Your task to perform on an android device: turn notification dots on Image 0: 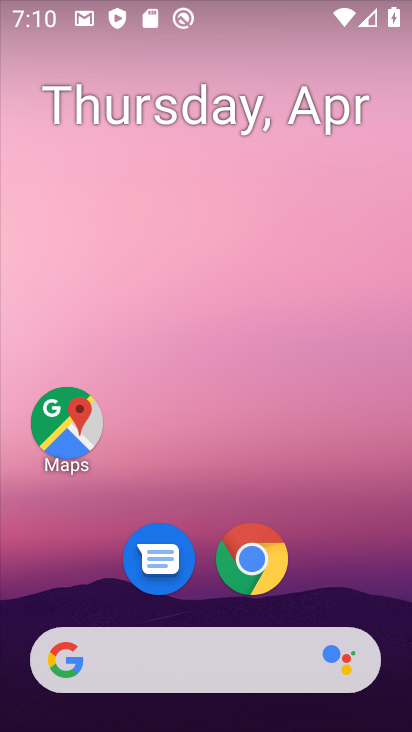
Step 0: drag from (342, 578) to (382, 9)
Your task to perform on an android device: turn notification dots on Image 1: 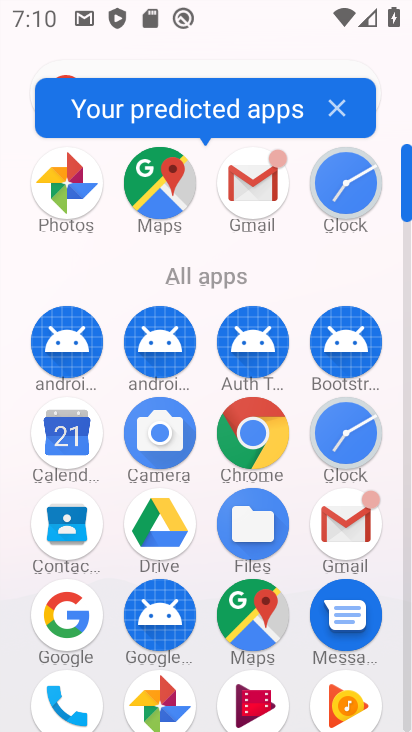
Step 1: drag from (293, 287) to (299, 53)
Your task to perform on an android device: turn notification dots on Image 2: 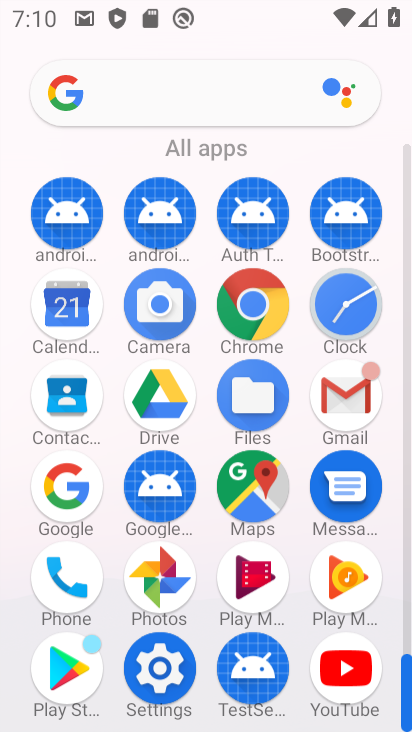
Step 2: click (157, 666)
Your task to perform on an android device: turn notification dots on Image 3: 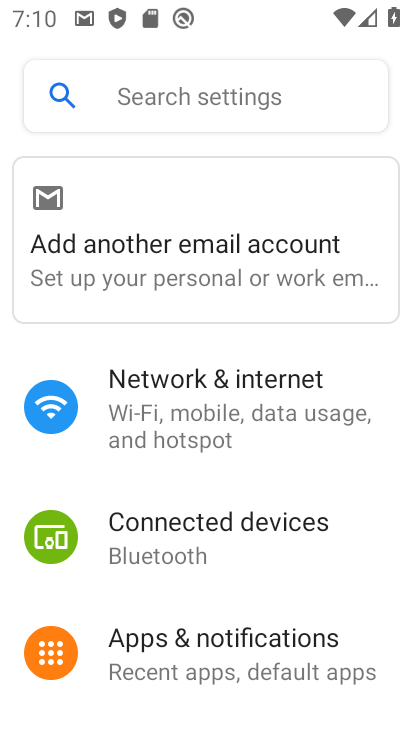
Step 3: drag from (340, 568) to (338, 244)
Your task to perform on an android device: turn notification dots on Image 4: 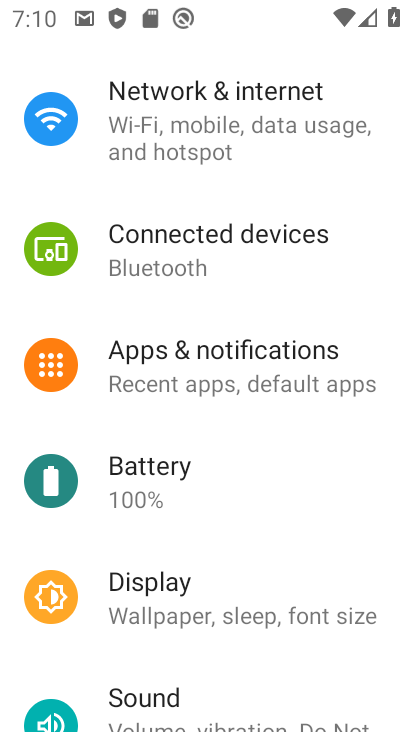
Step 4: click (204, 368)
Your task to perform on an android device: turn notification dots on Image 5: 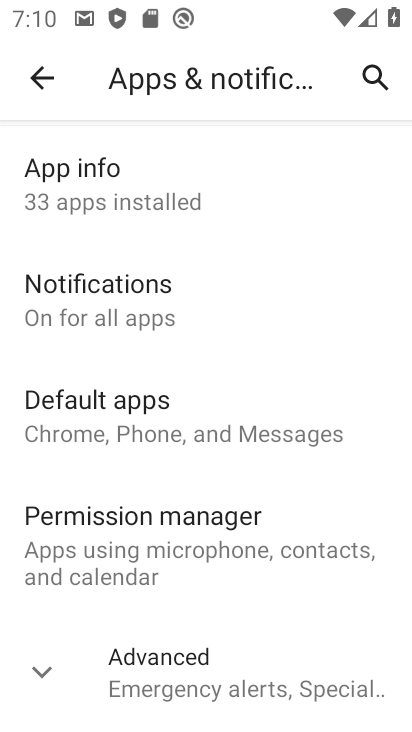
Step 5: click (179, 651)
Your task to perform on an android device: turn notification dots on Image 6: 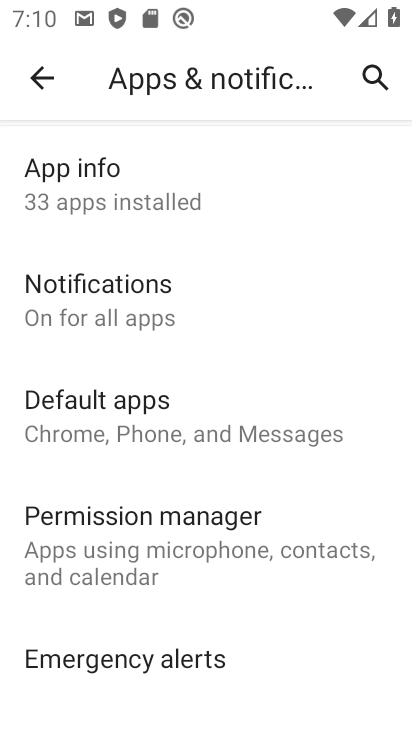
Step 6: drag from (303, 608) to (290, 308)
Your task to perform on an android device: turn notification dots on Image 7: 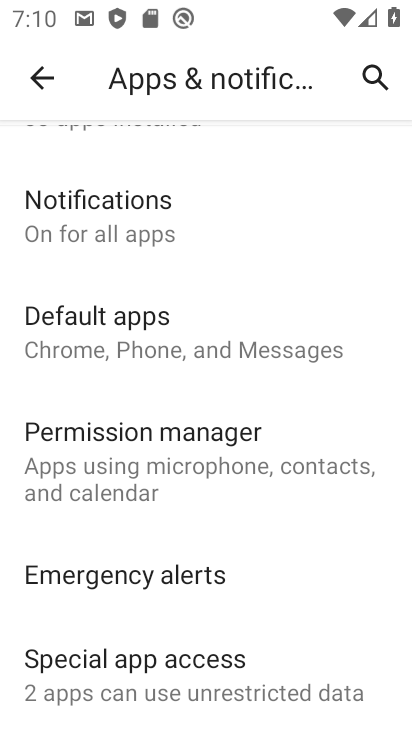
Step 7: click (103, 213)
Your task to perform on an android device: turn notification dots on Image 8: 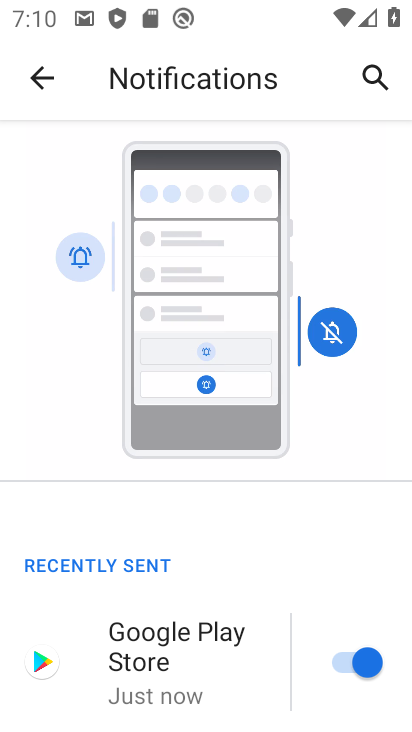
Step 8: drag from (359, 534) to (357, 219)
Your task to perform on an android device: turn notification dots on Image 9: 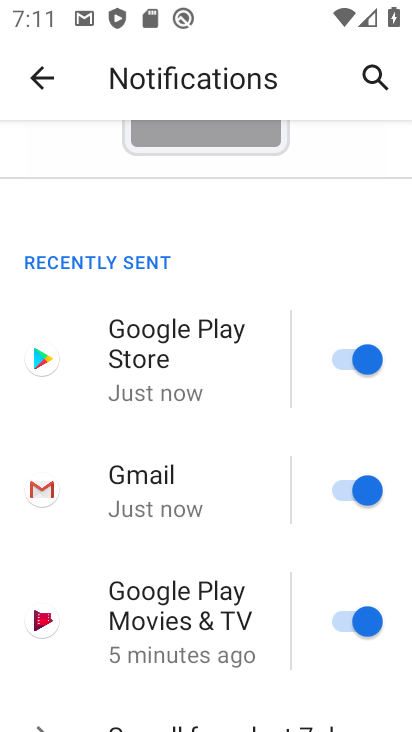
Step 9: drag from (268, 608) to (276, 101)
Your task to perform on an android device: turn notification dots on Image 10: 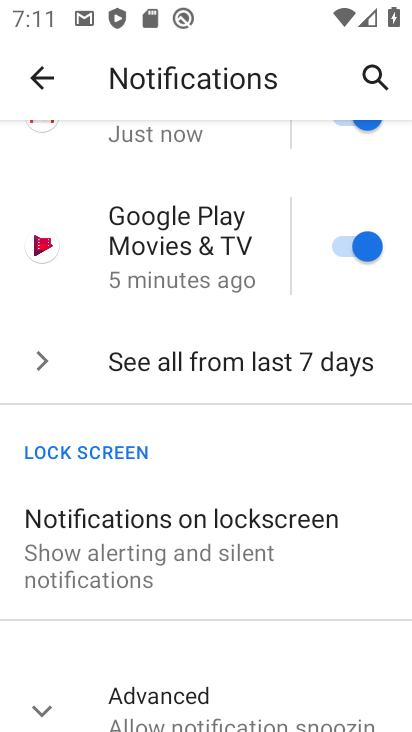
Step 10: drag from (270, 658) to (273, 329)
Your task to perform on an android device: turn notification dots on Image 11: 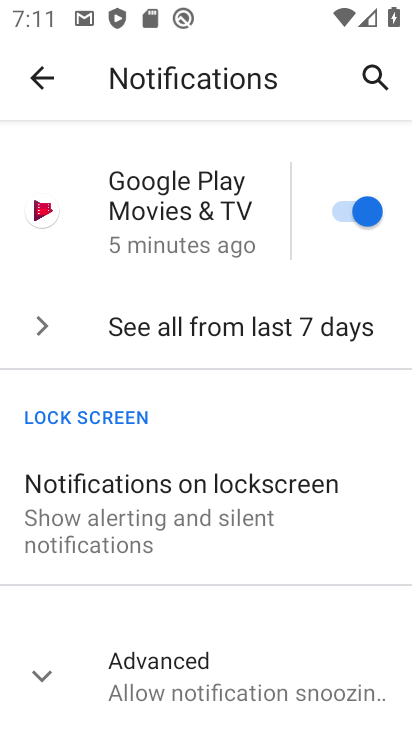
Step 11: click (164, 675)
Your task to perform on an android device: turn notification dots on Image 12: 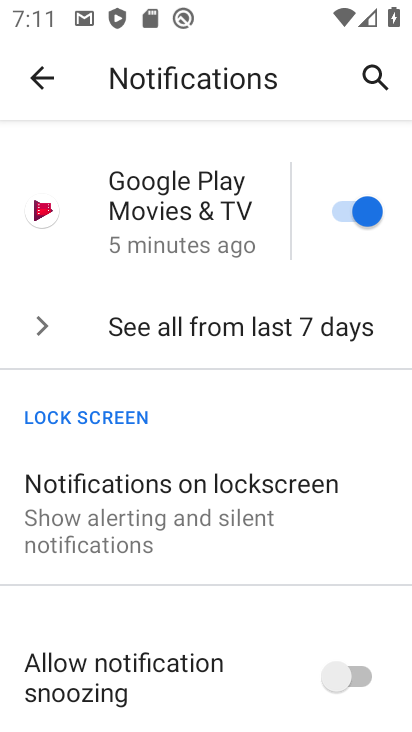
Step 12: drag from (256, 681) to (265, 364)
Your task to perform on an android device: turn notification dots on Image 13: 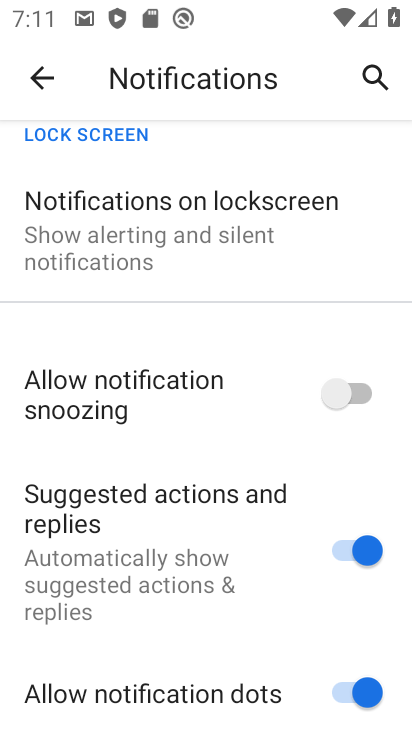
Step 13: click (266, 347)
Your task to perform on an android device: turn notification dots on Image 14: 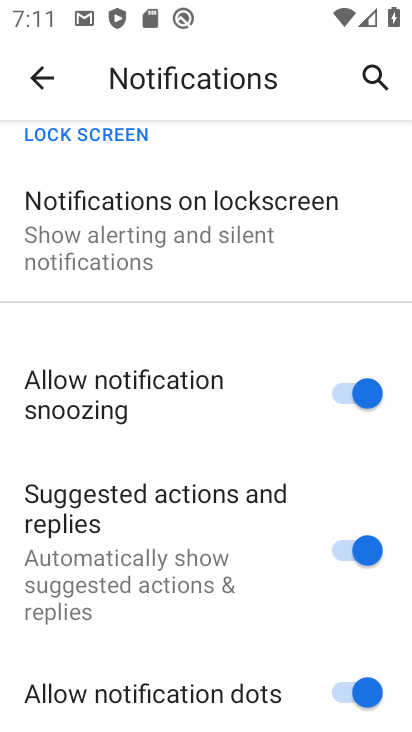
Step 14: task complete